Your task to perform on an android device: Open privacy settings Image 0: 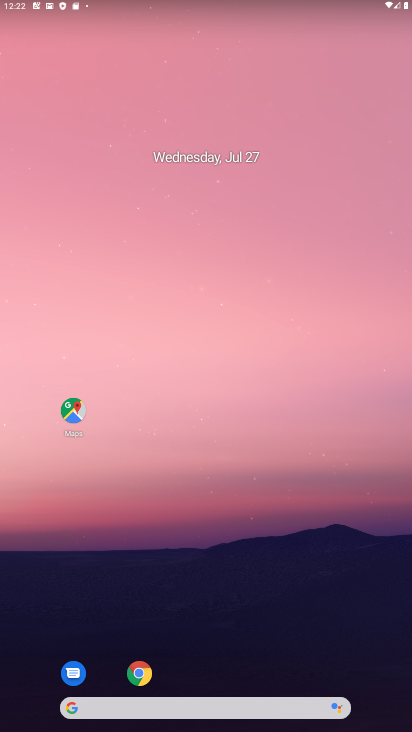
Step 0: drag from (242, 668) to (298, 72)
Your task to perform on an android device: Open privacy settings Image 1: 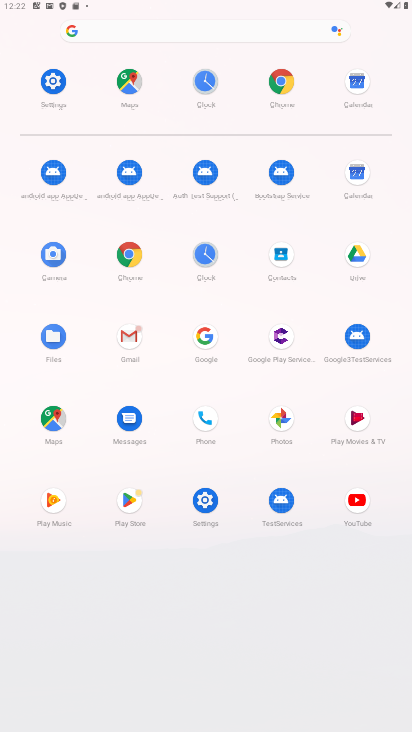
Step 1: click (48, 80)
Your task to perform on an android device: Open privacy settings Image 2: 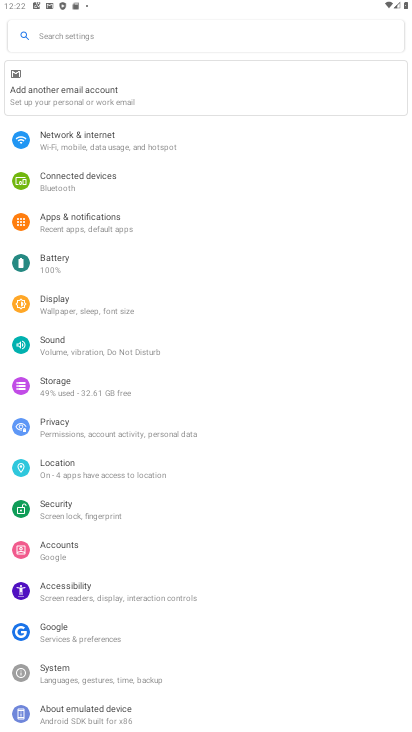
Step 2: click (60, 418)
Your task to perform on an android device: Open privacy settings Image 3: 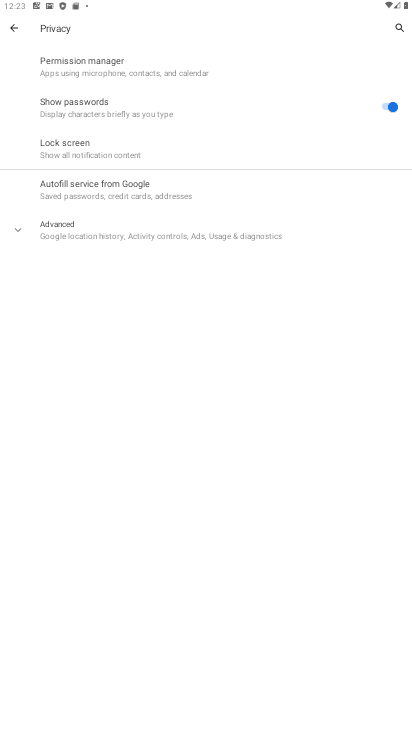
Step 3: task complete